Your task to perform on an android device: change text size in settings app Image 0: 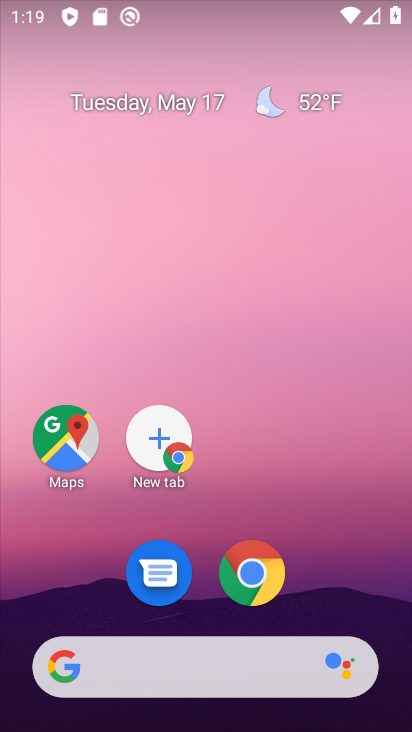
Step 0: drag from (331, 554) to (352, 197)
Your task to perform on an android device: change text size in settings app Image 1: 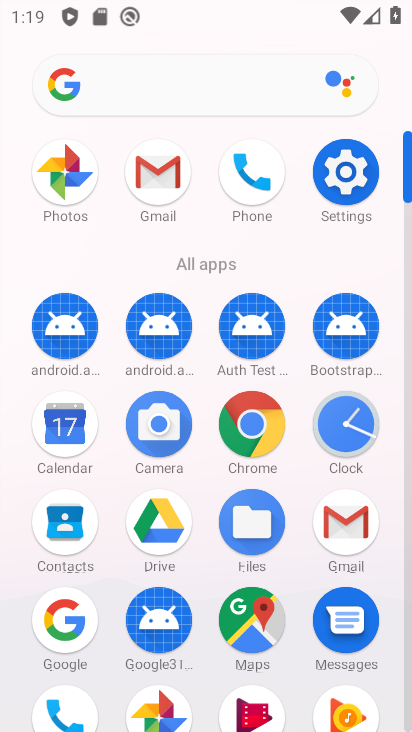
Step 1: drag from (310, 648) to (294, 501)
Your task to perform on an android device: change text size in settings app Image 2: 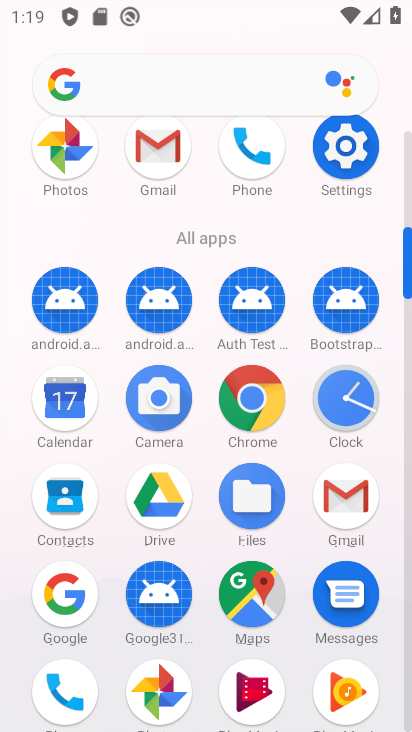
Step 2: click (341, 168)
Your task to perform on an android device: change text size in settings app Image 3: 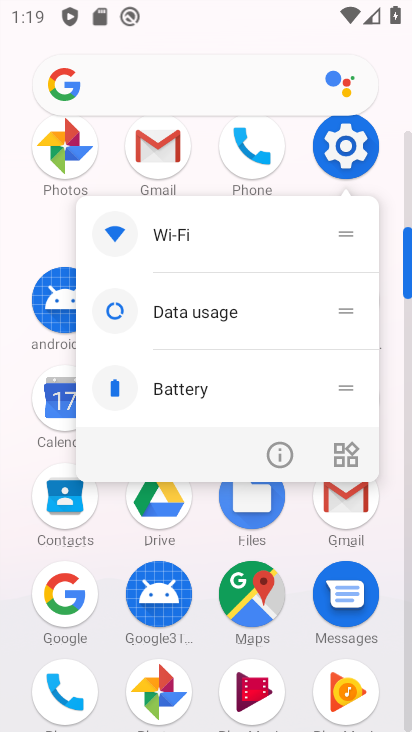
Step 3: click (353, 138)
Your task to perform on an android device: change text size in settings app Image 4: 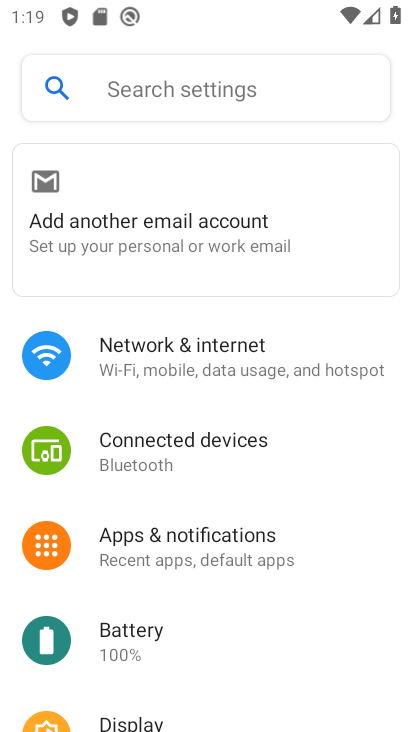
Step 4: drag from (234, 679) to (265, 322)
Your task to perform on an android device: change text size in settings app Image 5: 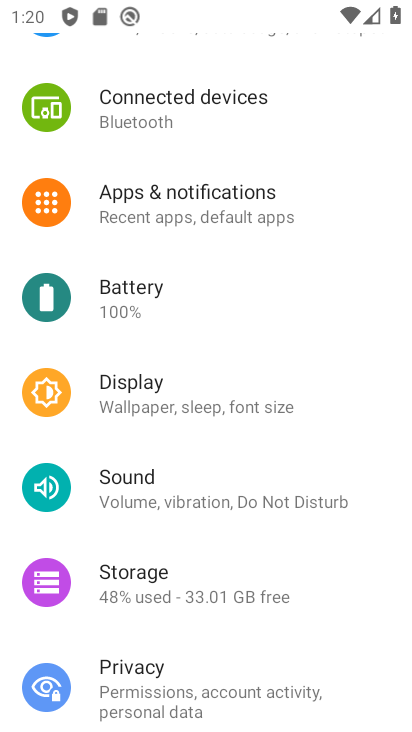
Step 5: click (171, 380)
Your task to perform on an android device: change text size in settings app Image 6: 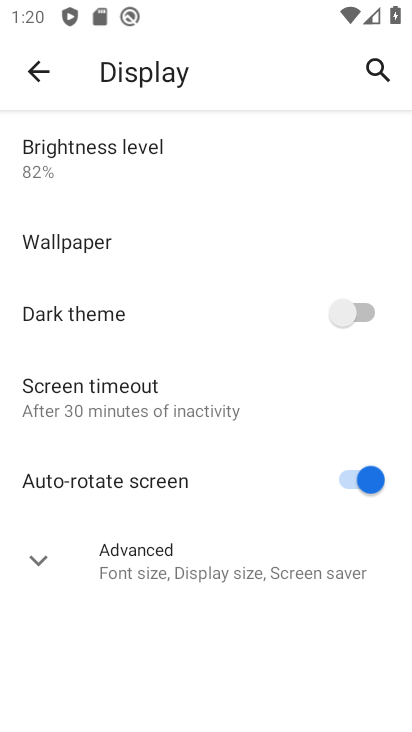
Step 6: click (6, 560)
Your task to perform on an android device: change text size in settings app Image 7: 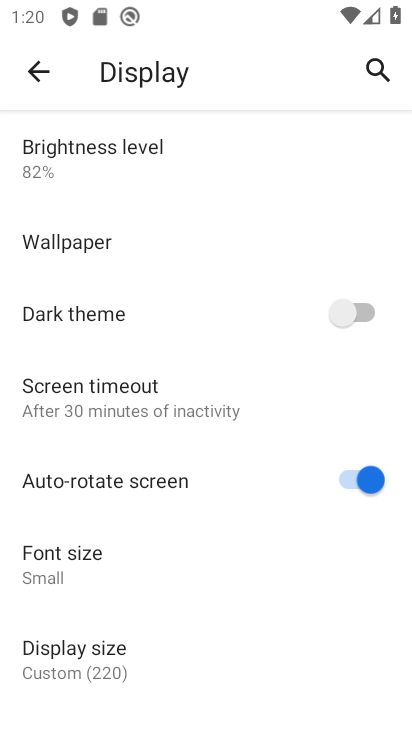
Step 7: drag from (158, 637) to (206, 435)
Your task to perform on an android device: change text size in settings app Image 8: 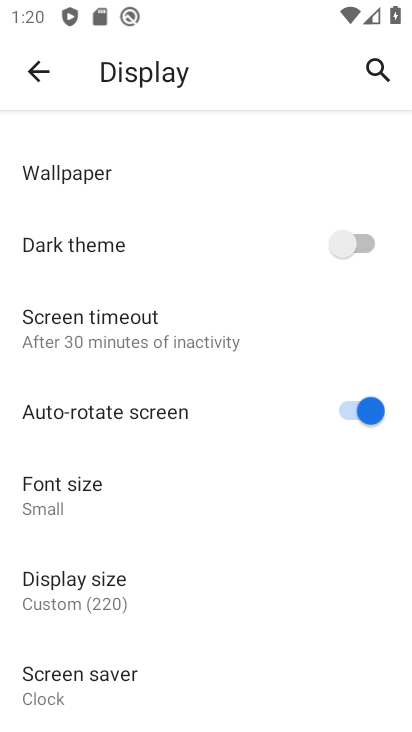
Step 8: click (179, 501)
Your task to perform on an android device: change text size in settings app Image 9: 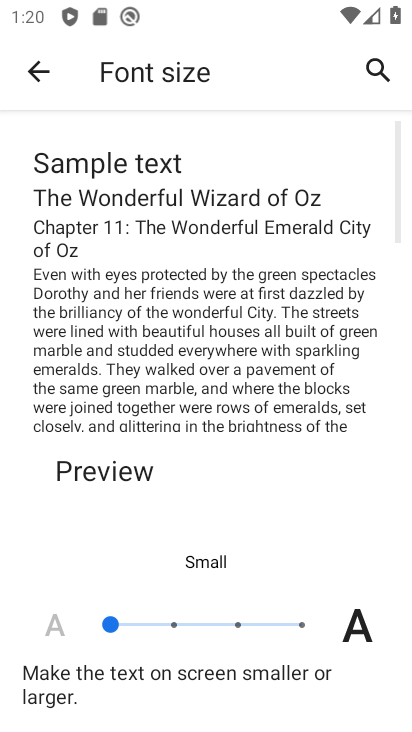
Step 9: click (175, 626)
Your task to perform on an android device: change text size in settings app Image 10: 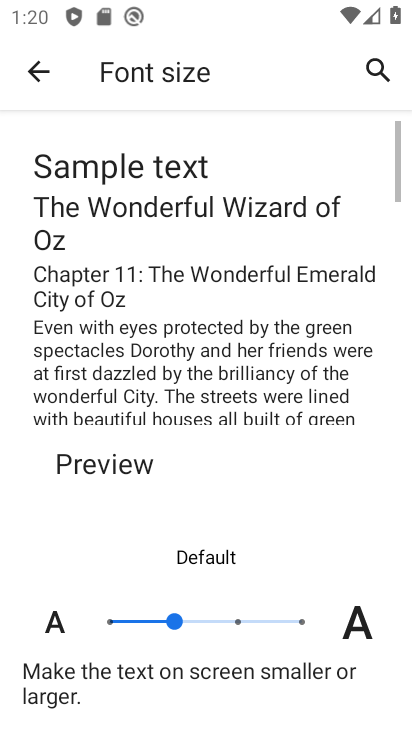
Step 10: task complete